Your task to perform on an android device: Is it going to rain today? Image 0: 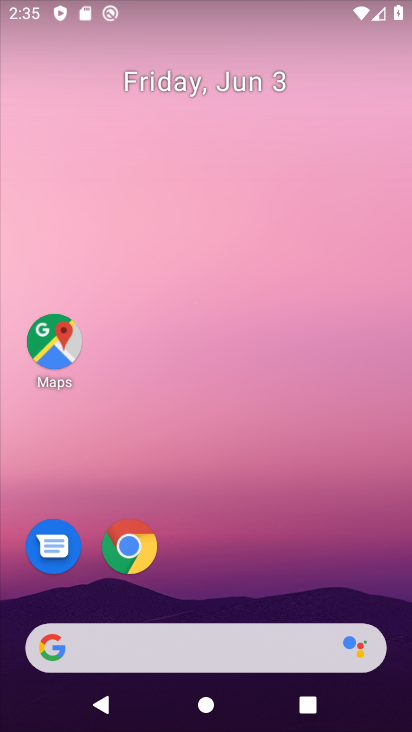
Step 0: drag from (143, 657) to (213, 640)
Your task to perform on an android device: Is it going to rain today? Image 1: 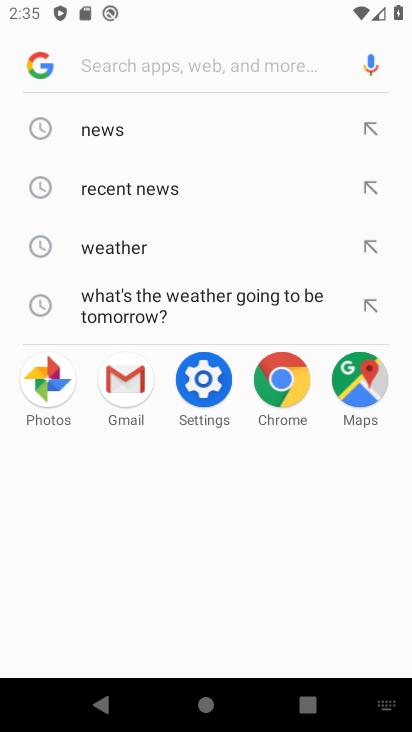
Step 1: type "is it going to rain today"
Your task to perform on an android device: Is it going to rain today? Image 2: 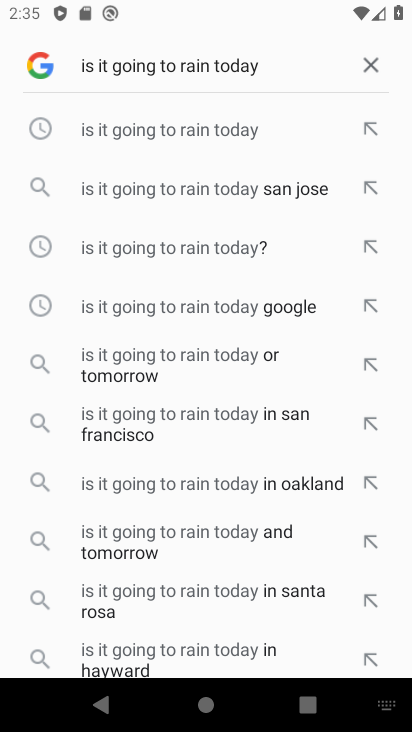
Step 2: click (138, 119)
Your task to perform on an android device: Is it going to rain today? Image 3: 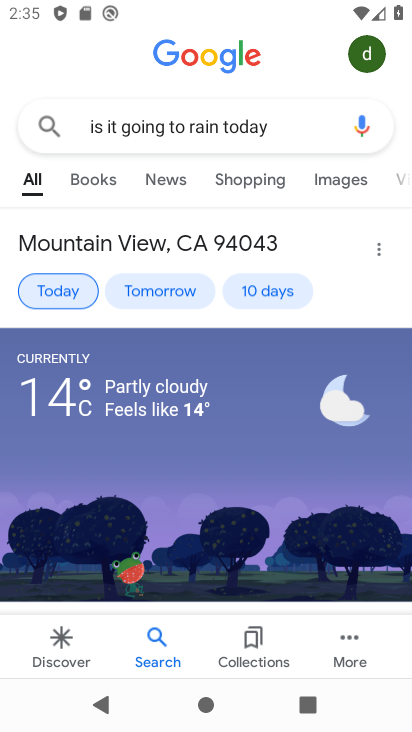
Step 3: task complete